Your task to perform on an android device: choose inbox layout in the gmail app Image 0: 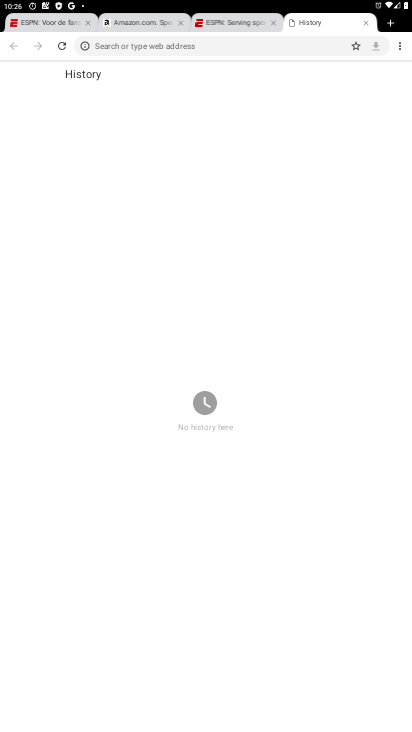
Step 0: press home button
Your task to perform on an android device: choose inbox layout in the gmail app Image 1: 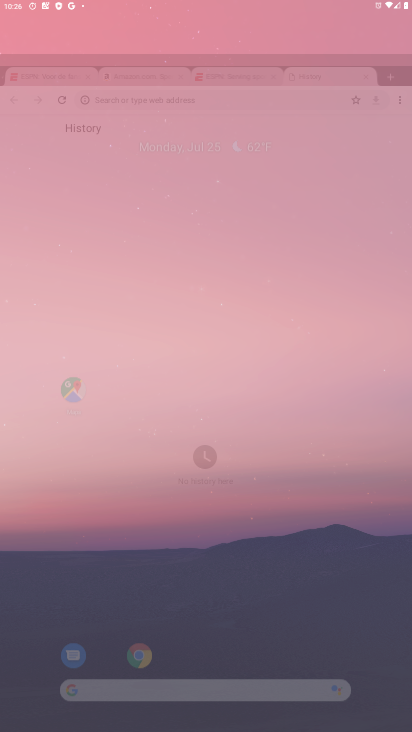
Step 1: drag from (103, 468) to (166, 72)
Your task to perform on an android device: choose inbox layout in the gmail app Image 2: 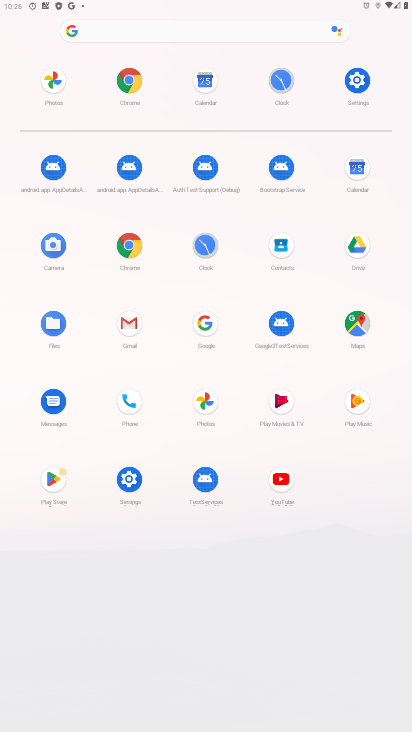
Step 2: click (129, 316)
Your task to perform on an android device: choose inbox layout in the gmail app Image 3: 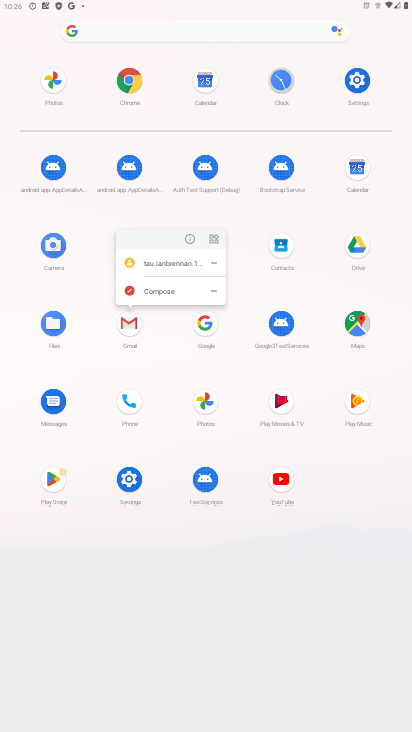
Step 3: click (188, 236)
Your task to perform on an android device: choose inbox layout in the gmail app Image 4: 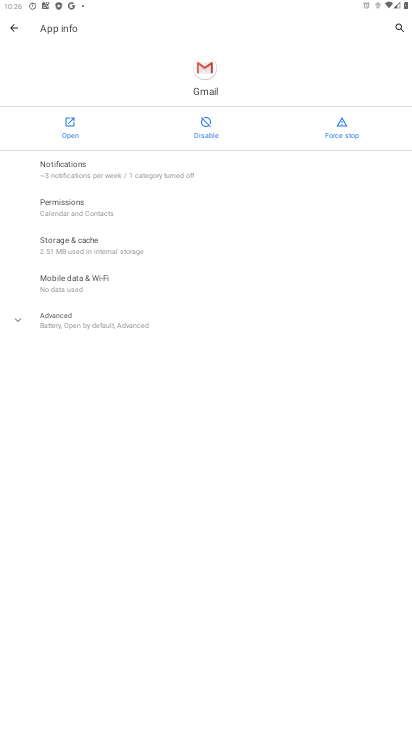
Step 4: click (66, 113)
Your task to perform on an android device: choose inbox layout in the gmail app Image 5: 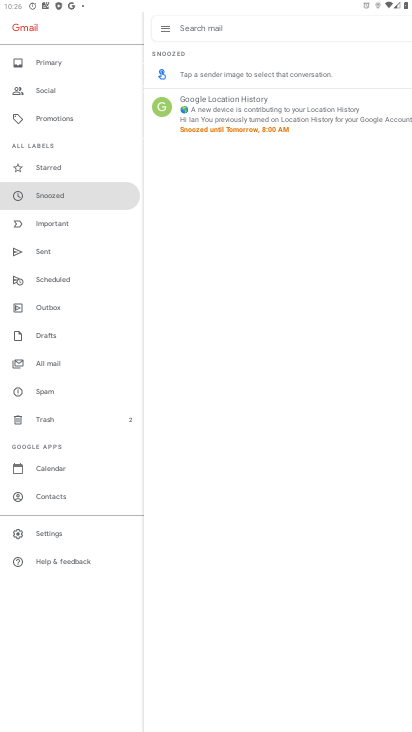
Step 5: click (77, 57)
Your task to perform on an android device: choose inbox layout in the gmail app Image 6: 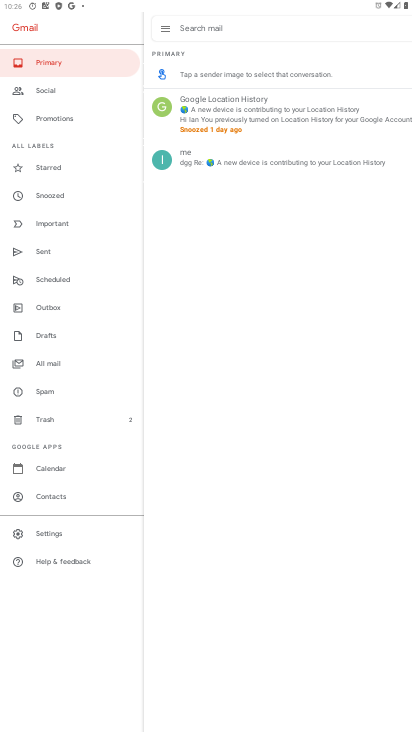
Step 6: task complete